Your task to perform on an android device: What's the news in Bolivia? Image 0: 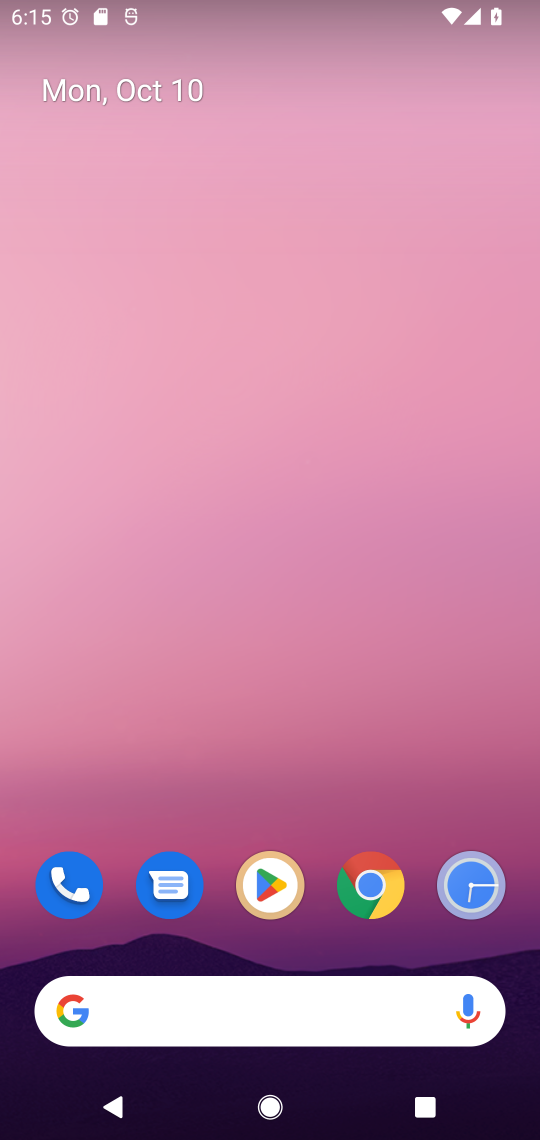
Step 0: click (373, 877)
Your task to perform on an android device: What's the news in Bolivia? Image 1: 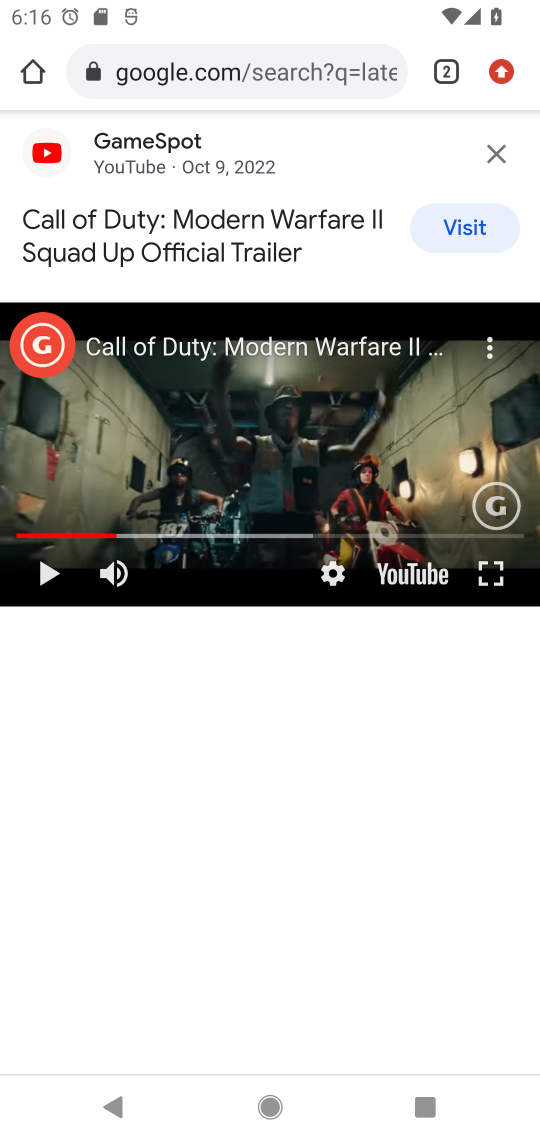
Step 1: click (235, 91)
Your task to perform on an android device: What's the news in Bolivia? Image 2: 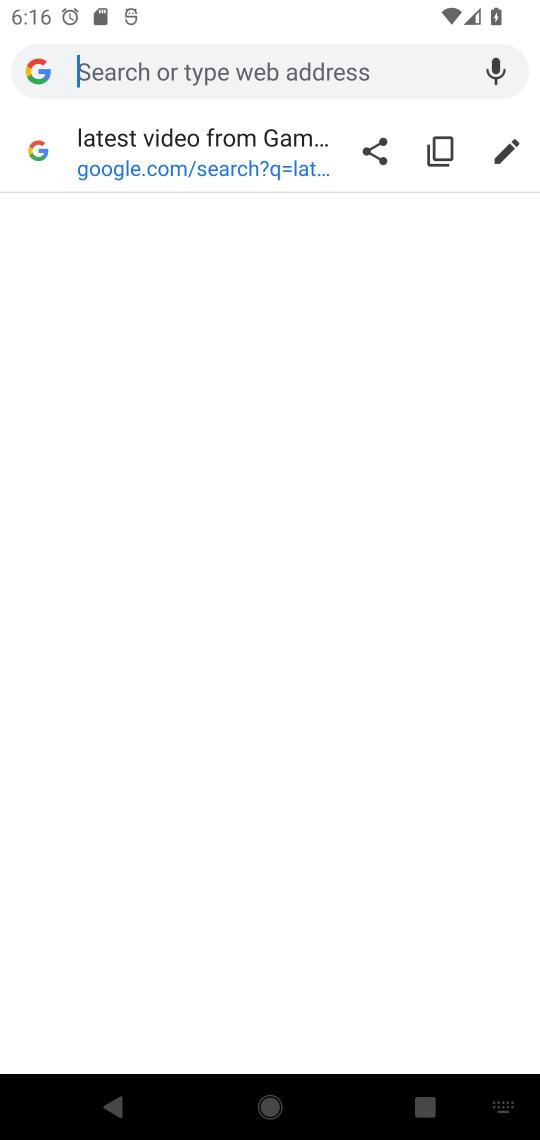
Step 2: type "Bolivia"
Your task to perform on an android device: What's the news in Bolivia? Image 3: 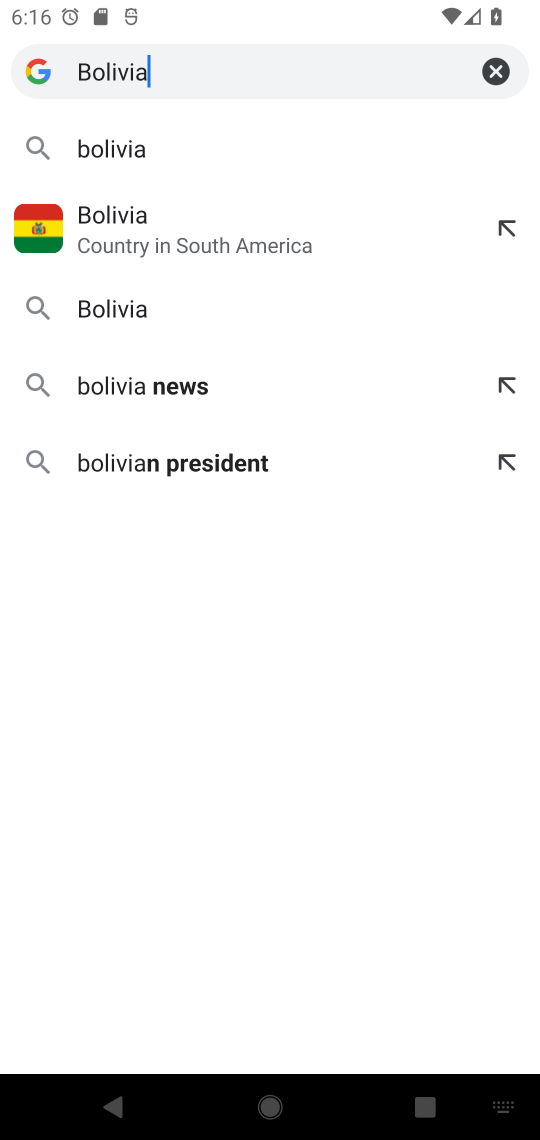
Step 3: click (174, 151)
Your task to perform on an android device: What's the news in Bolivia? Image 4: 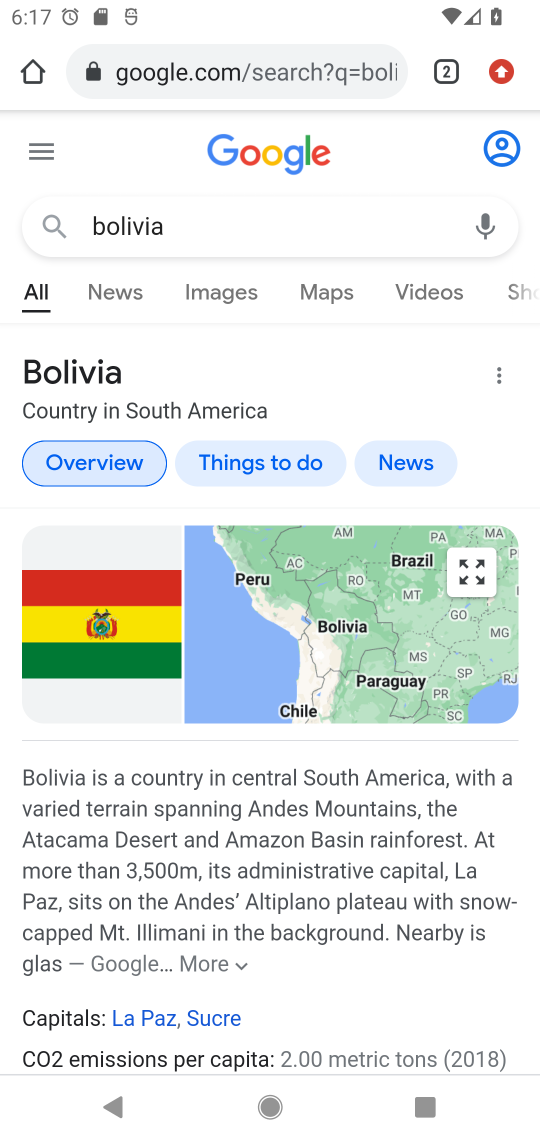
Step 4: click (128, 283)
Your task to perform on an android device: What's the news in Bolivia? Image 5: 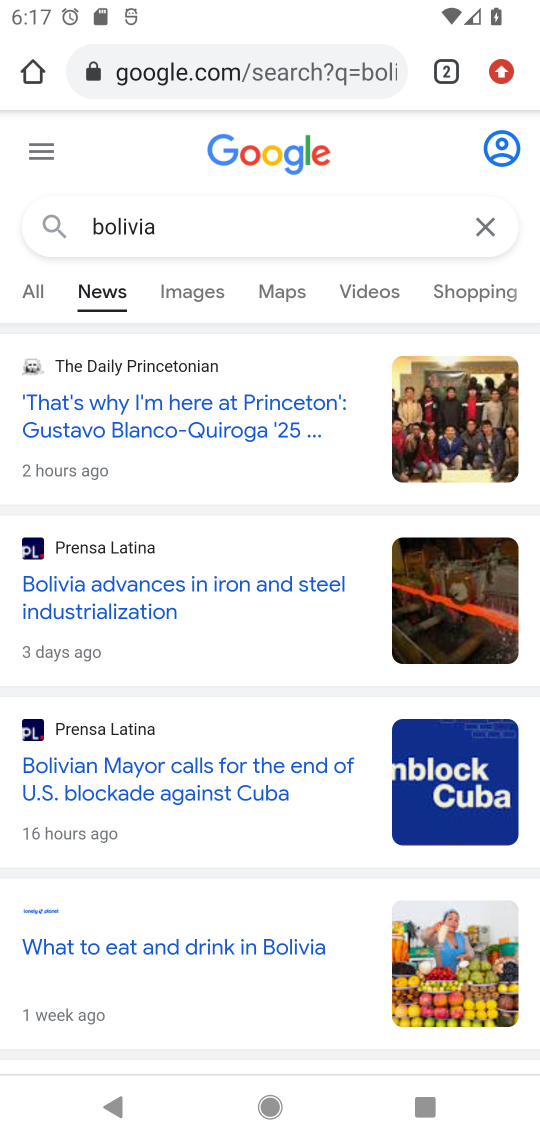
Step 5: task complete